Your task to perform on an android device: Go to ESPN.com Image 0: 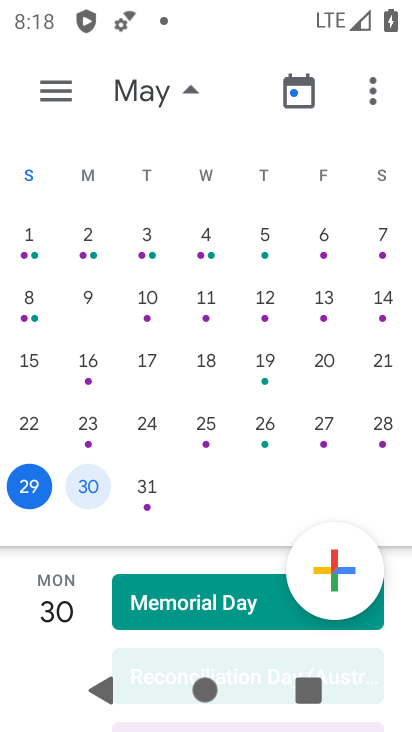
Step 0: press home button
Your task to perform on an android device: Go to ESPN.com Image 1: 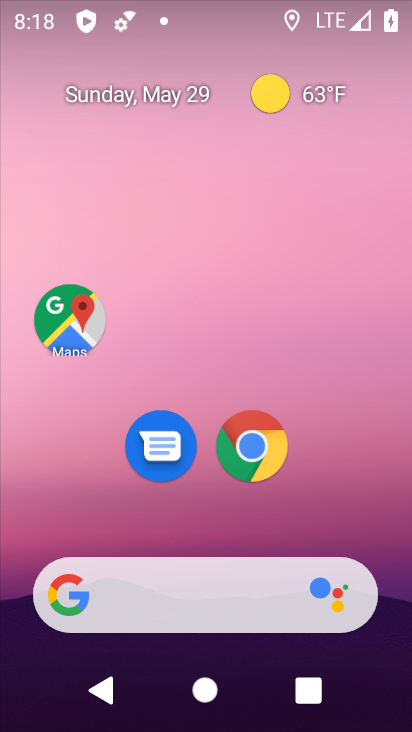
Step 1: click (247, 457)
Your task to perform on an android device: Go to ESPN.com Image 2: 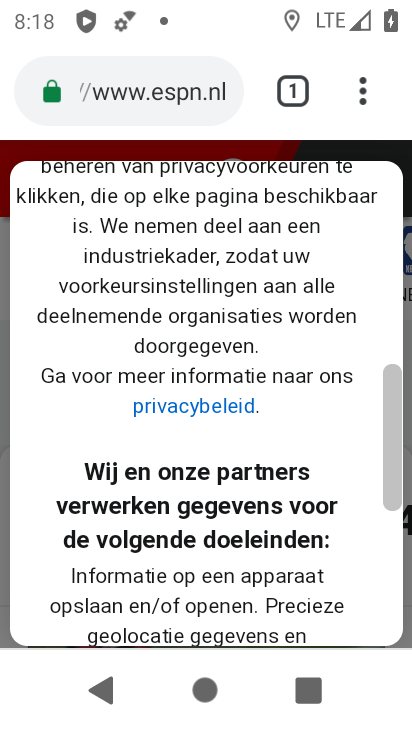
Step 2: task complete